Your task to perform on an android device: turn off location Image 0: 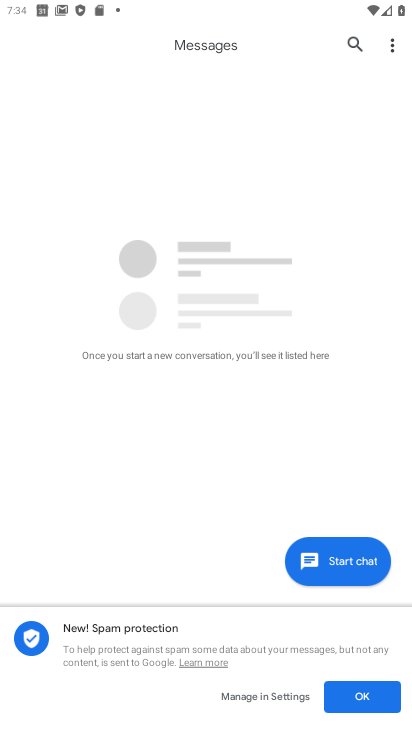
Step 0: press home button
Your task to perform on an android device: turn off location Image 1: 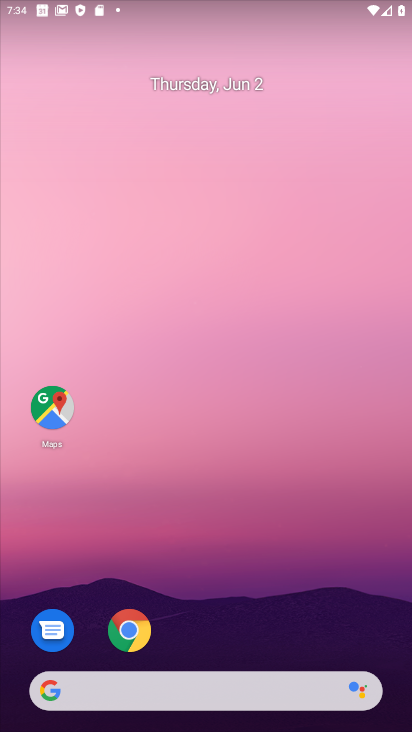
Step 1: drag from (147, 731) to (136, 49)
Your task to perform on an android device: turn off location Image 2: 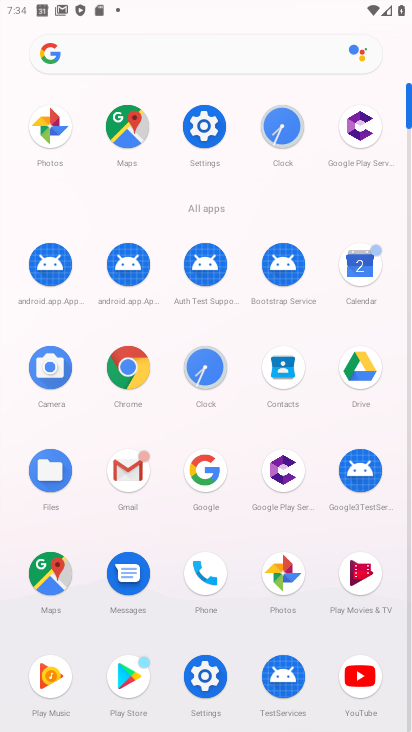
Step 2: click (197, 123)
Your task to perform on an android device: turn off location Image 3: 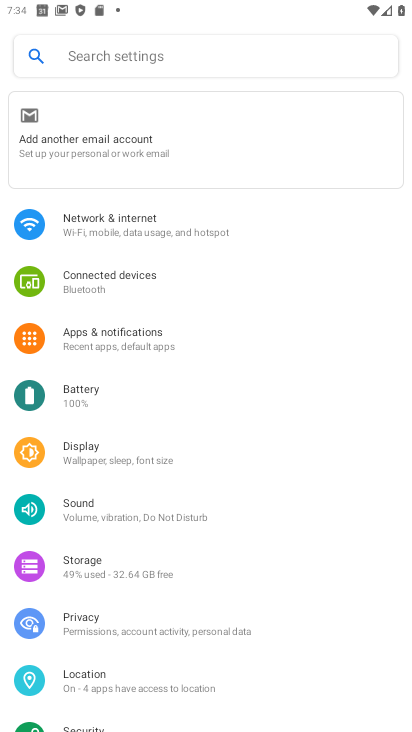
Step 3: click (91, 681)
Your task to perform on an android device: turn off location Image 4: 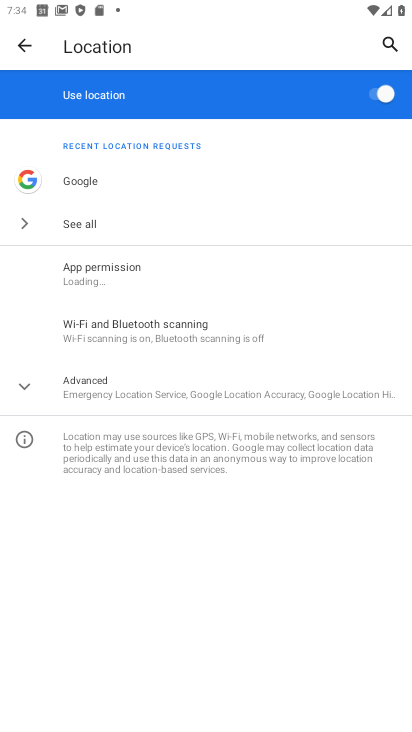
Step 4: click (383, 99)
Your task to perform on an android device: turn off location Image 5: 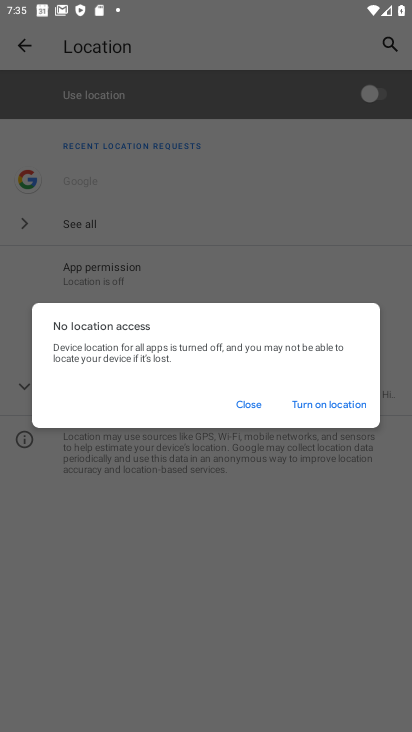
Step 5: click (261, 410)
Your task to perform on an android device: turn off location Image 6: 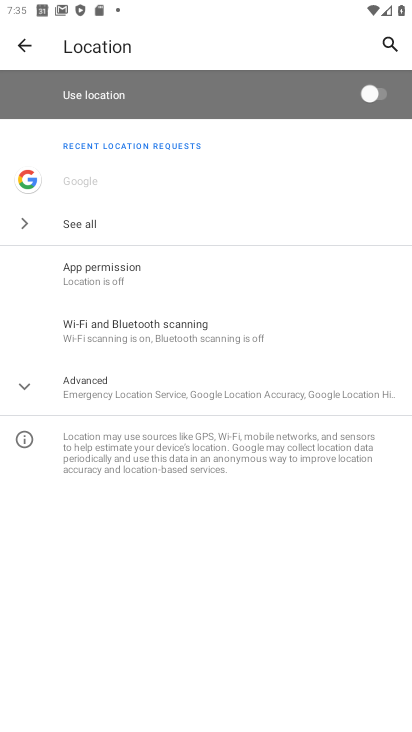
Step 6: task complete